Your task to perform on an android device: Go to display settings Image 0: 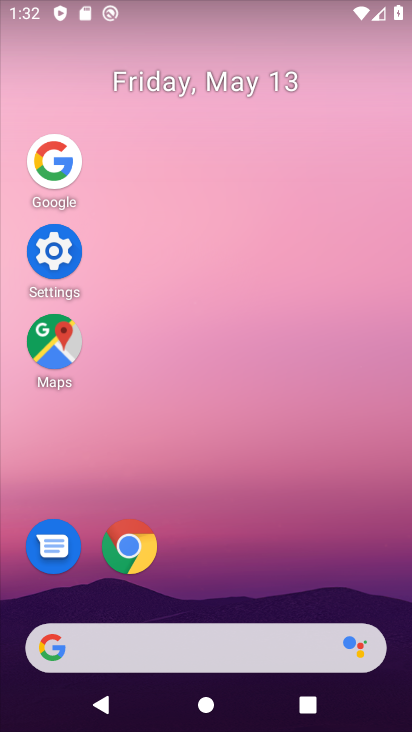
Step 0: click (73, 251)
Your task to perform on an android device: Go to display settings Image 1: 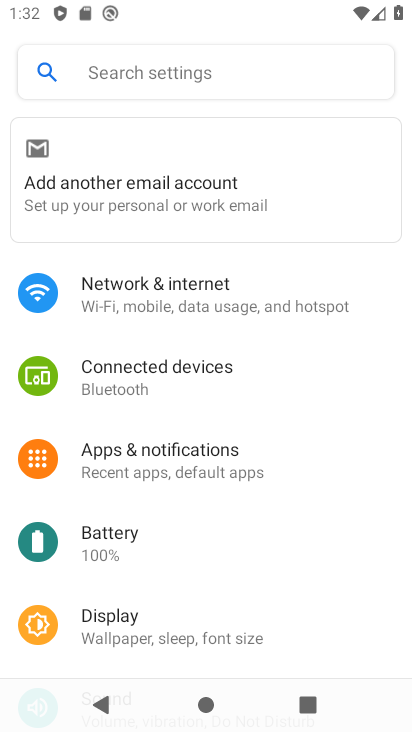
Step 1: drag from (268, 569) to (250, 188)
Your task to perform on an android device: Go to display settings Image 2: 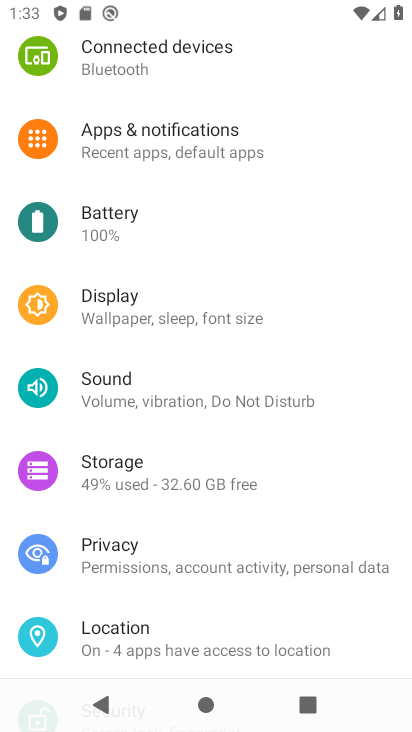
Step 2: click (202, 298)
Your task to perform on an android device: Go to display settings Image 3: 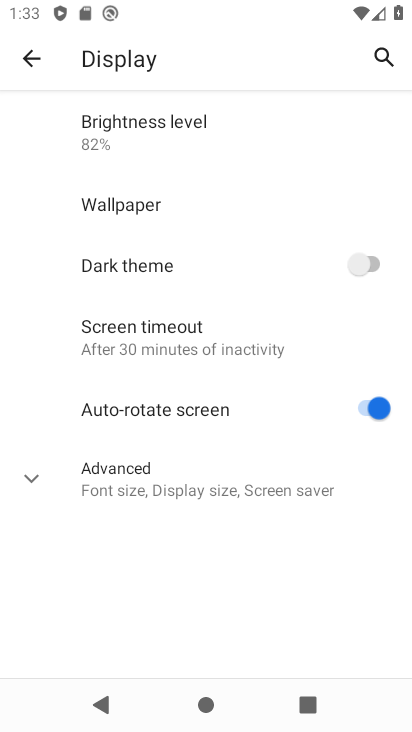
Step 3: task complete